Your task to perform on an android device: Open privacy settings Image 0: 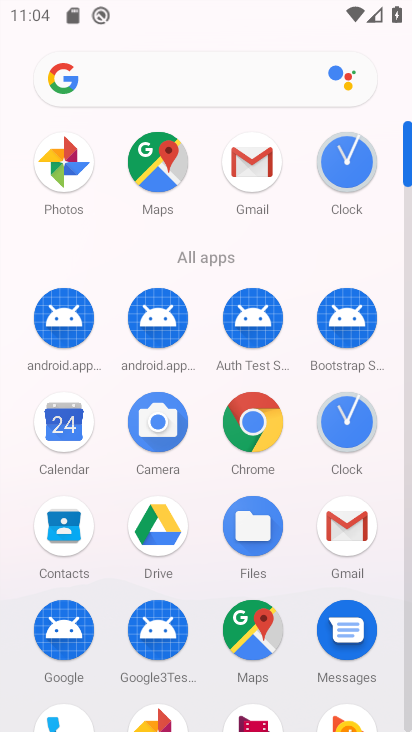
Step 0: press home button
Your task to perform on an android device: Open privacy settings Image 1: 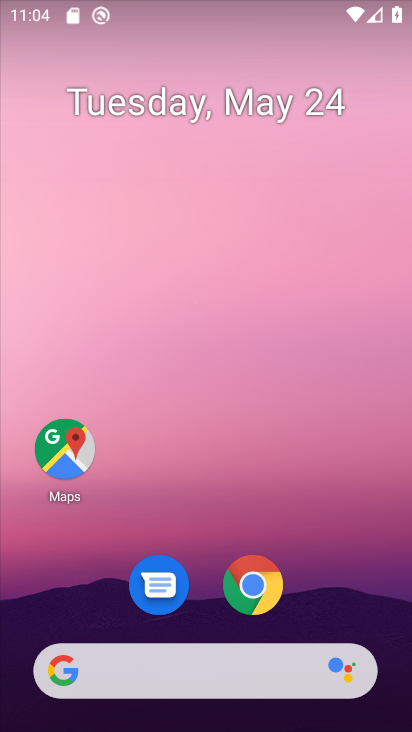
Step 1: drag from (204, 494) to (219, 34)
Your task to perform on an android device: Open privacy settings Image 2: 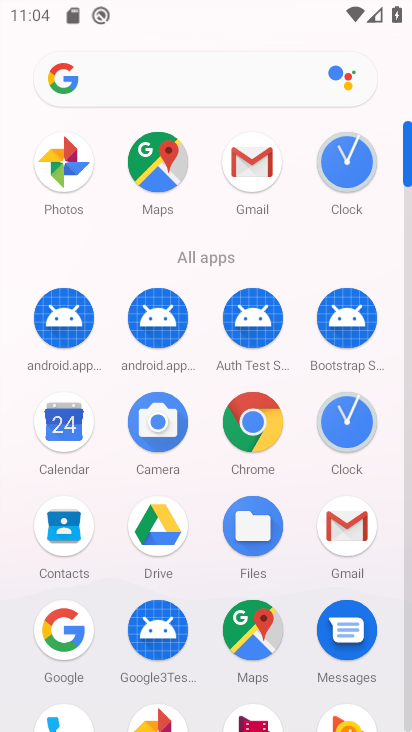
Step 2: drag from (187, 512) to (213, 176)
Your task to perform on an android device: Open privacy settings Image 3: 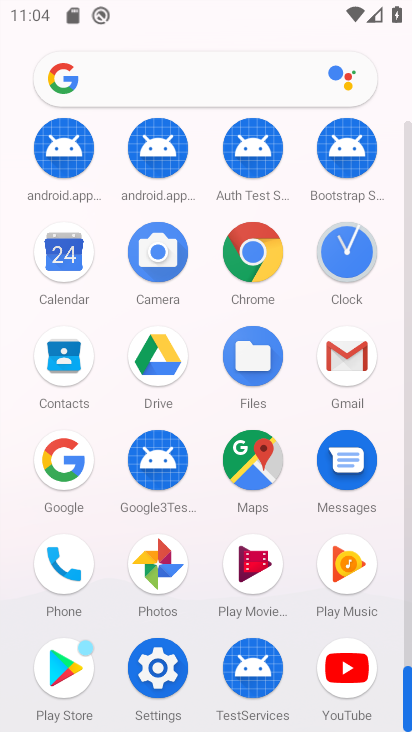
Step 3: click (153, 647)
Your task to perform on an android device: Open privacy settings Image 4: 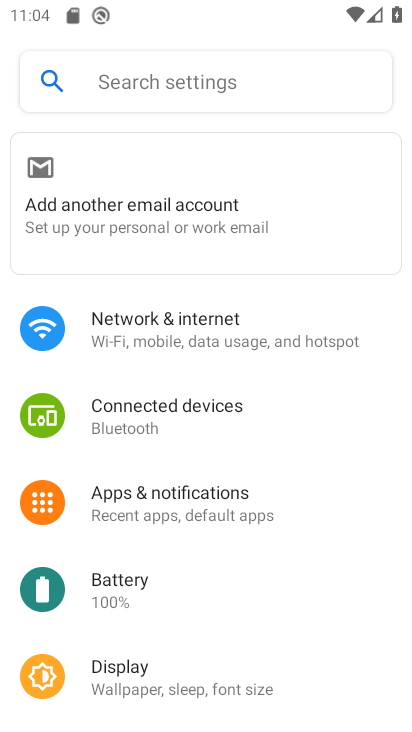
Step 4: drag from (212, 627) to (232, 190)
Your task to perform on an android device: Open privacy settings Image 5: 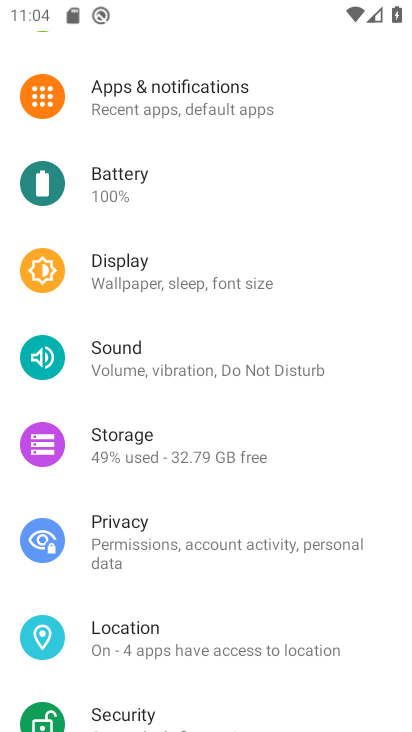
Step 5: click (220, 532)
Your task to perform on an android device: Open privacy settings Image 6: 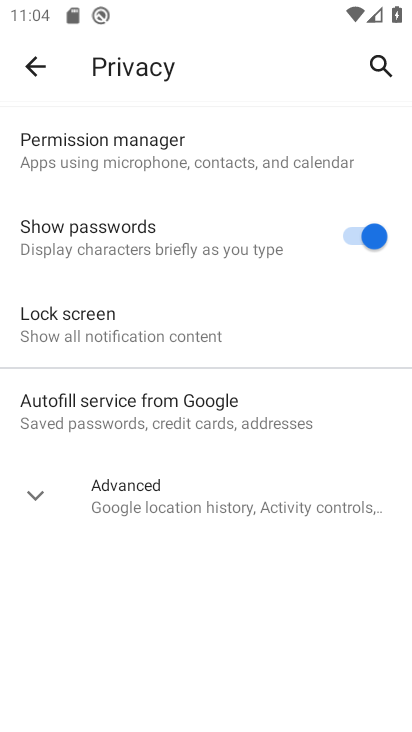
Step 6: task complete